Your task to perform on an android device: Show the shopping cart on walmart. Image 0: 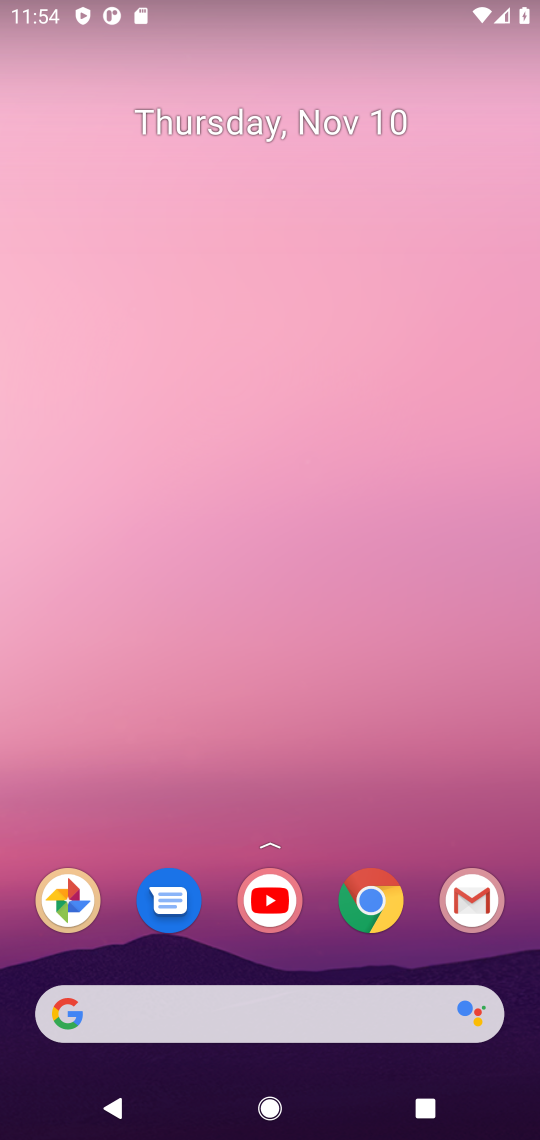
Step 0: press home button
Your task to perform on an android device: Show the shopping cart on walmart. Image 1: 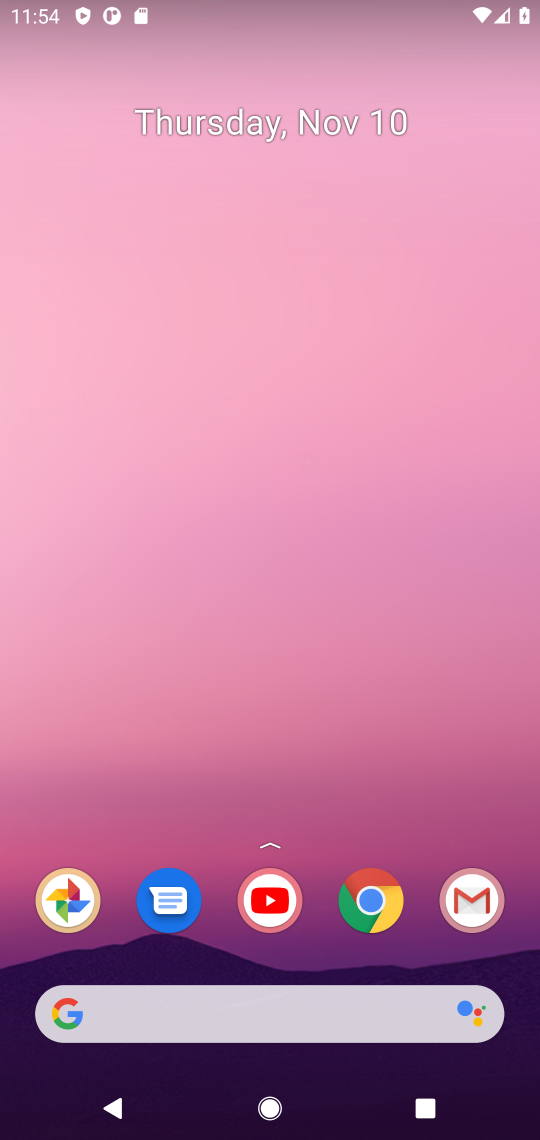
Step 1: click (377, 912)
Your task to perform on an android device: Show the shopping cart on walmart. Image 2: 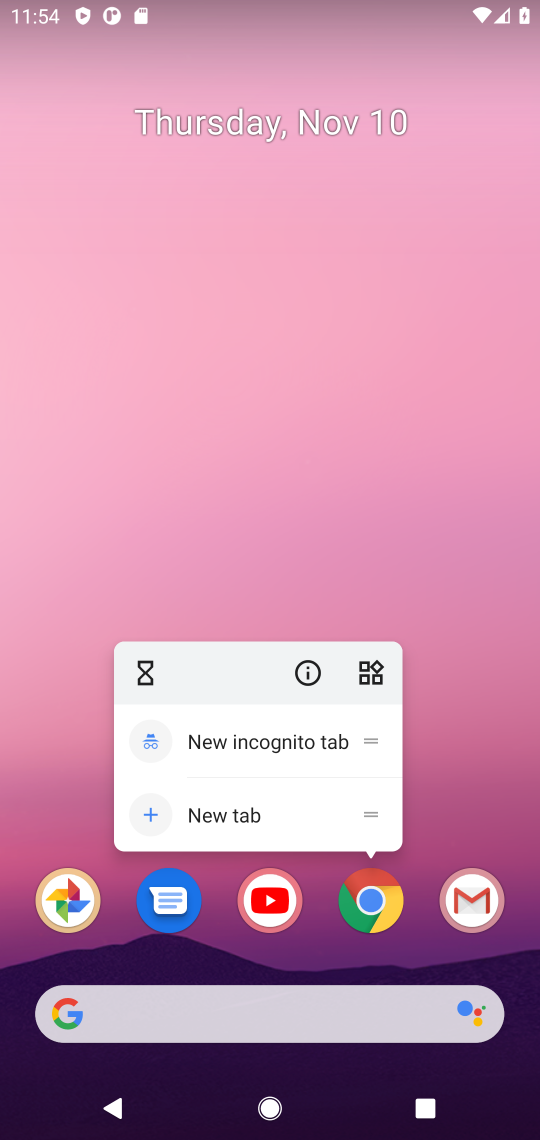
Step 2: click (376, 906)
Your task to perform on an android device: Show the shopping cart on walmart. Image 3: 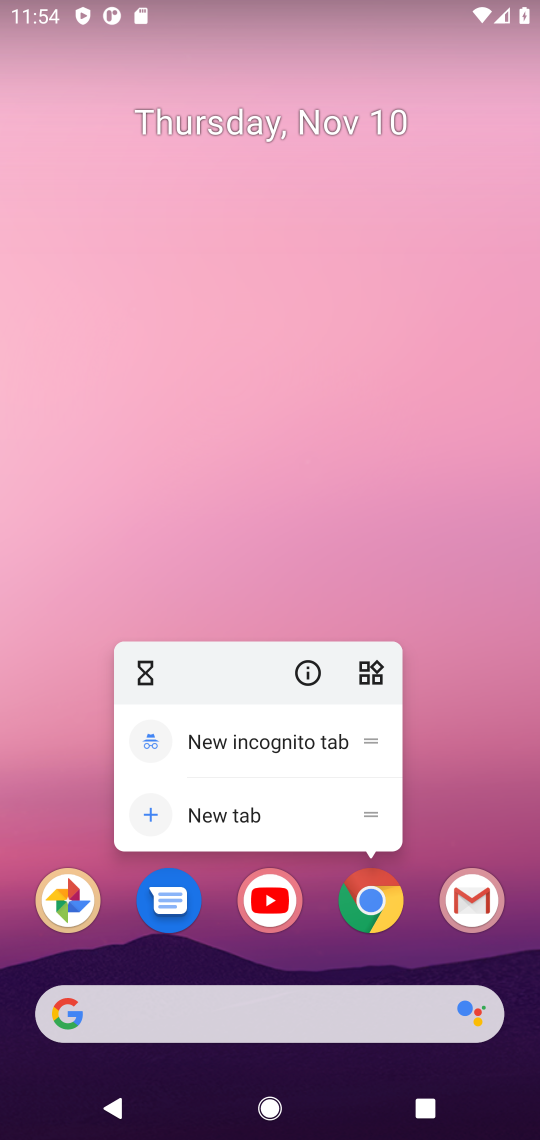
Step 3: click (376, 906)
Your task to perform on an android device: Show the shopping cart on walmart. Image 4: 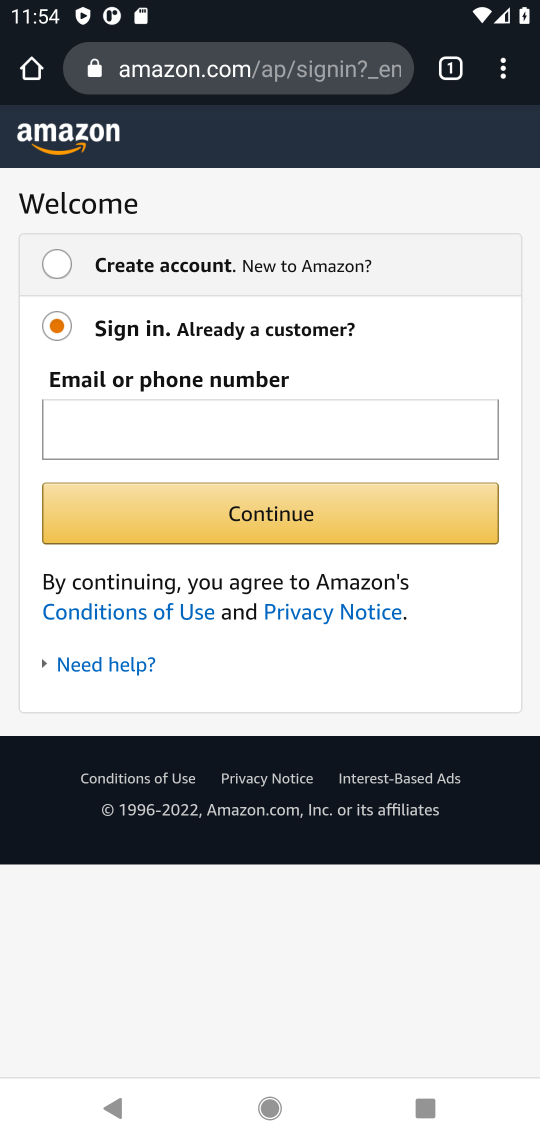
Step 4: click (294, 75)
Your task to perform on an android device: Show the shopping cart on walmart. Image 5: 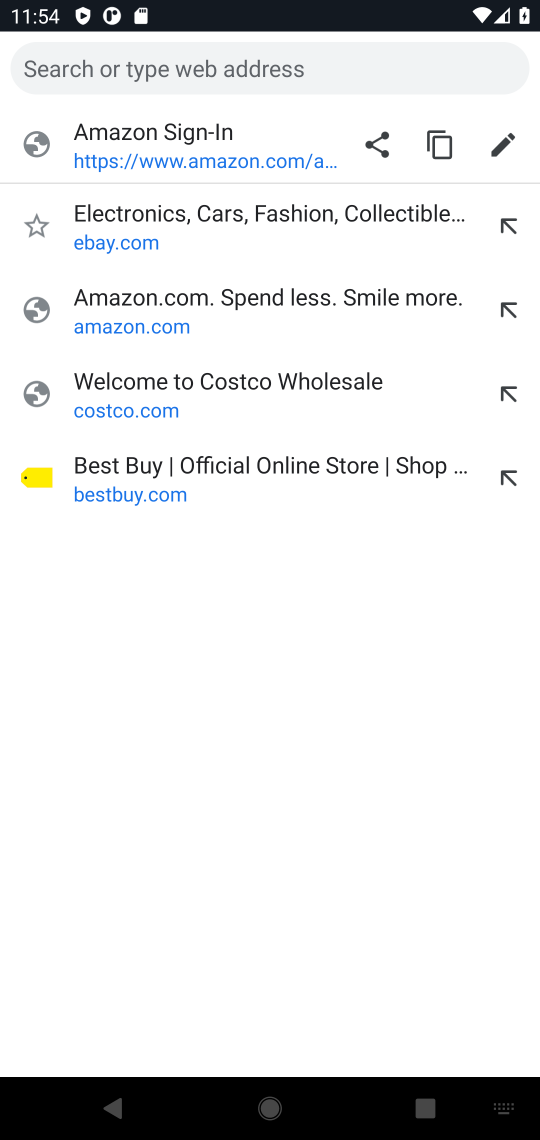
Step 5: type "walmart"
Your task to perform on an android device: Show the shopping cart on walmart. Image 6: 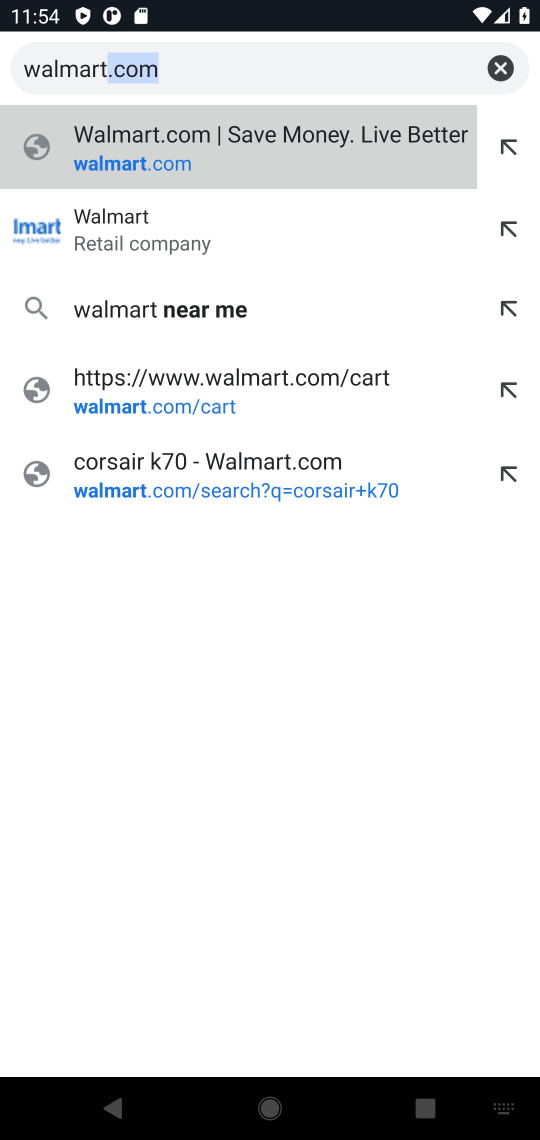
Step 6: press enter
Your task to perform on an android device: Show the shopping cart on walmart. Image 7: 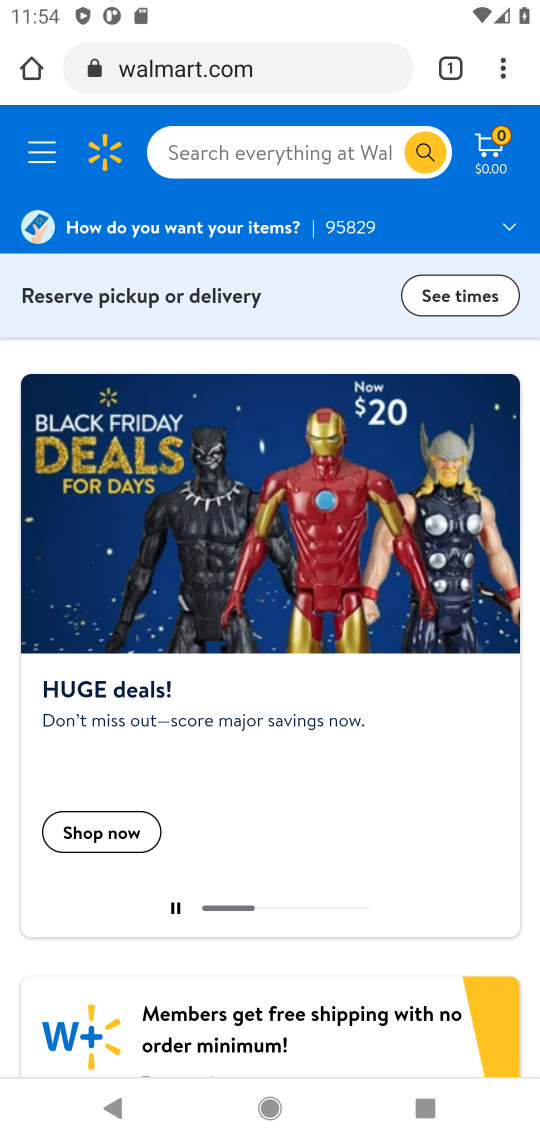
Step 7: click (495, 145)
Your task to perform on an android device: Show the shopping cart on walmart. Image 8: 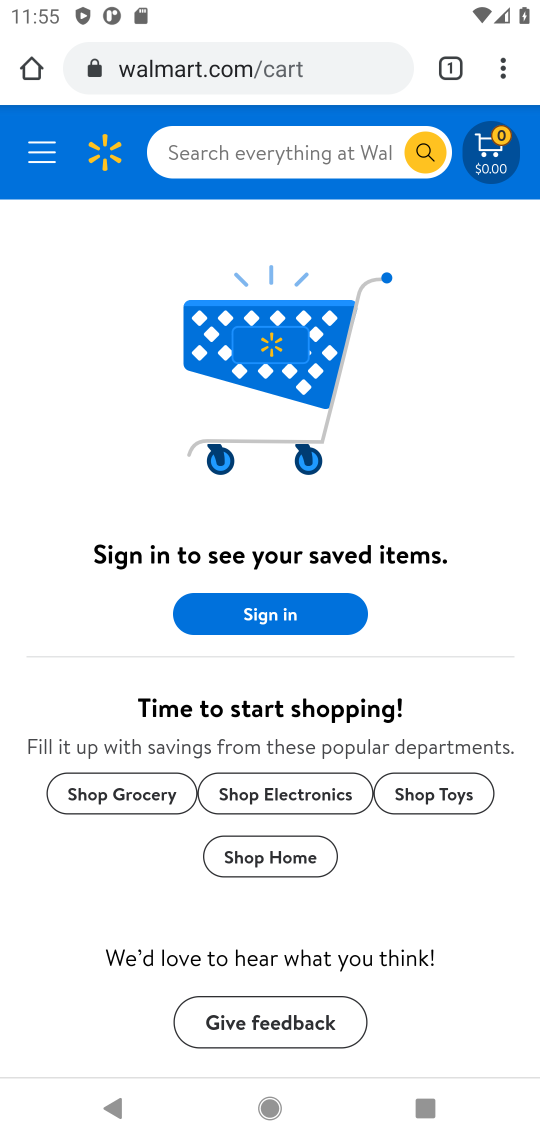
Step 8: task complete